Your task to perform on an android device: change notification settings in the gmail app Image 0: 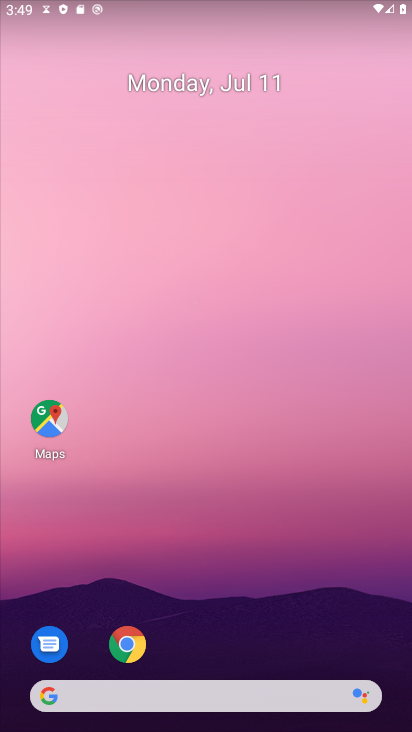
Step 0: drag from (197, 720) to (189, 202)
Your task to perform on an android device: change notification settings in the gmail app Image 1: 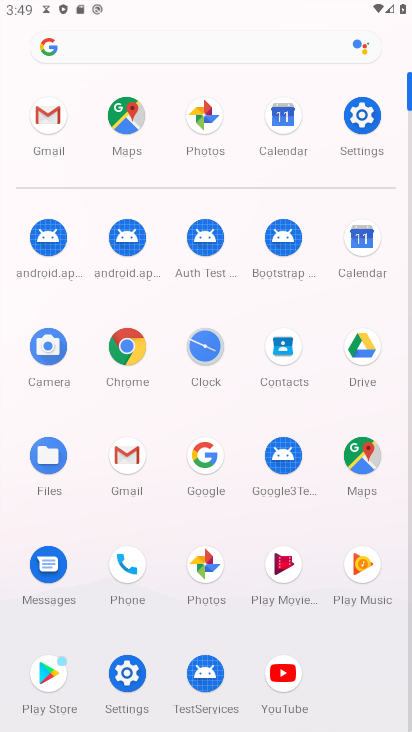
Step 1: click (55, 114)
Your task to perform on an android device: change notification settings in the gmail app Image 2: 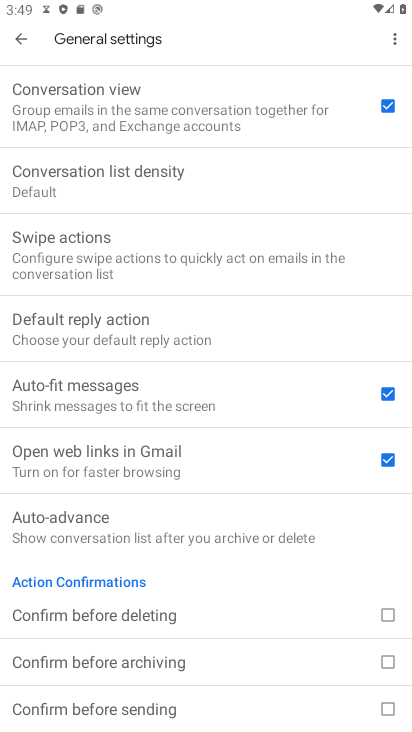
Step 2: task complete